Your task to perform on an android device: Go to location settings Image 0: 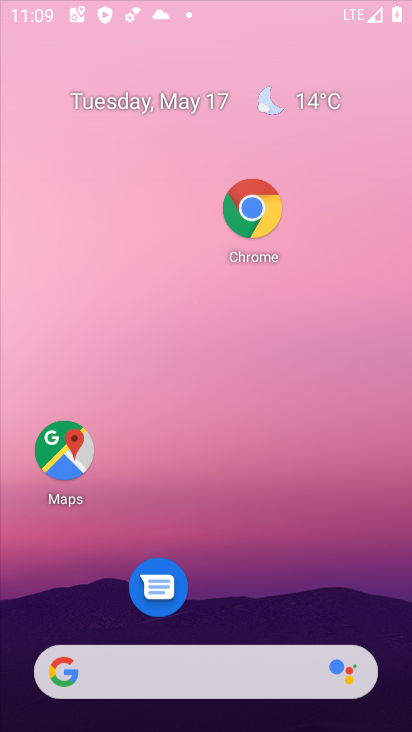
Step 0: drag from (266, 577) to (202, 166)
Your task to perform on an android device: Go to location settings Image 1: 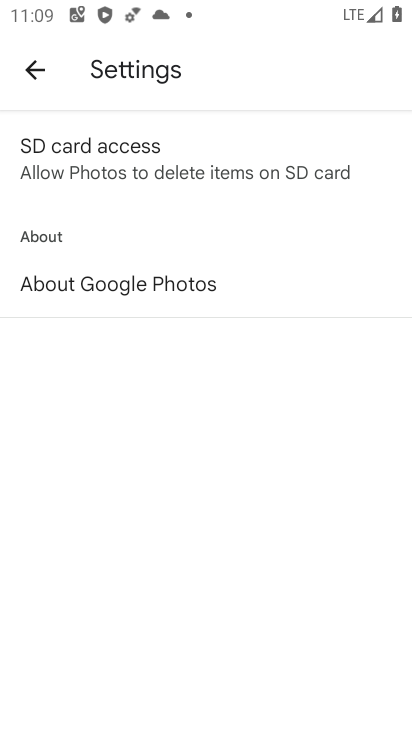
Step 1: press home button
Your task to perform on an android device: Go to location settings Image 2: 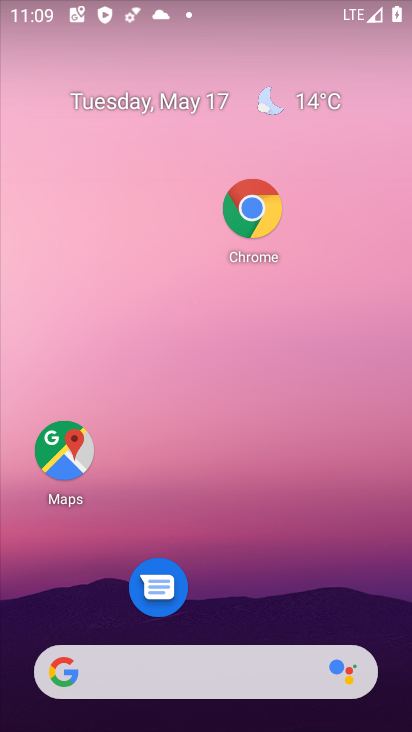
Step 2: drag from (255, 517) to (266, 8)
Your task to perform on an android device: Go to location settings Image 3: 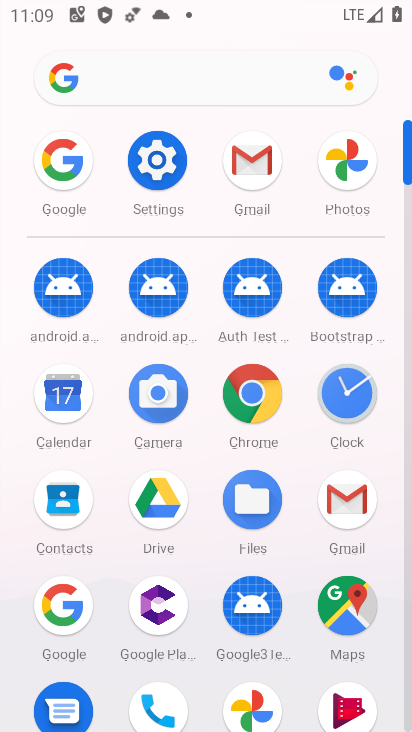
Step 3: click (155, 148)
Your task to perform on an android device: Go to location settings Image 4: 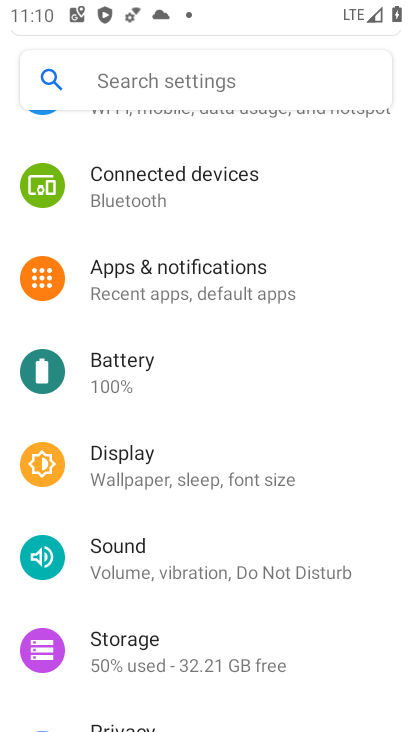
Step 4: drag from (269, 540) to (258, 215)
Your task to perform on an android device: Go to location settings Image 5: 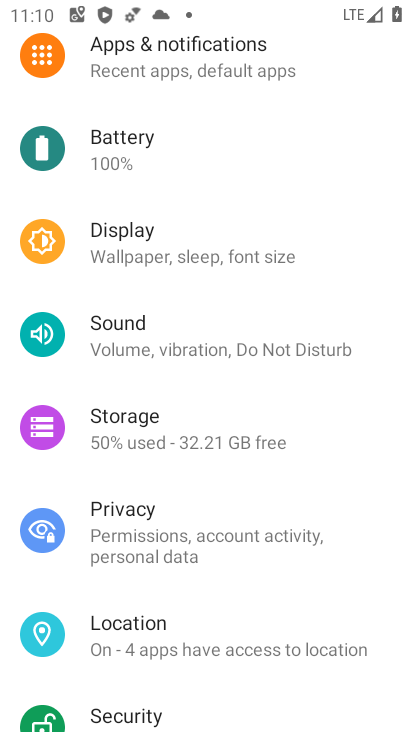
Step 5: click (219, 652)
Your task to perform on an android device: Go to location settings Image 6: 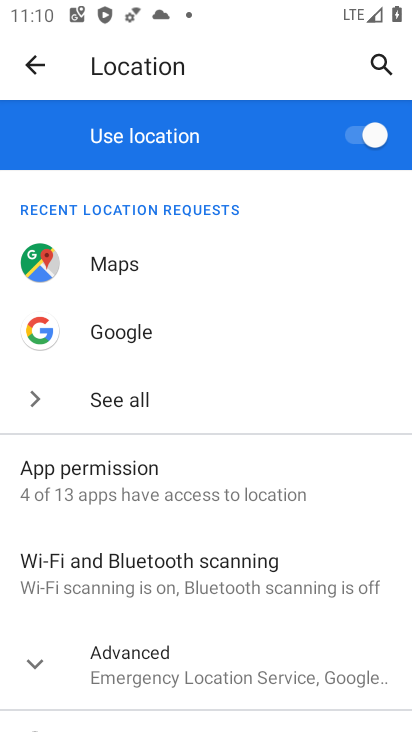
Step 6: task complete